Your task to perform on an android device: open the mobile data screen to see how much data has been used Image 0: 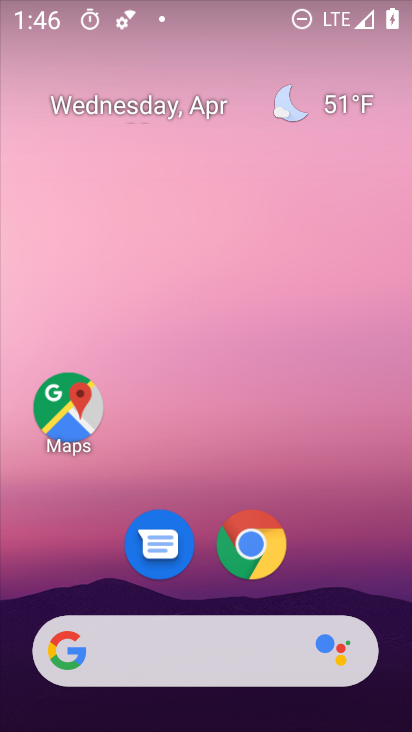
Step 0: drag from (331, 564) to (336, 147)
Your task to perform on an android device: open the mobile data screen to see how much data has been used Image 1: 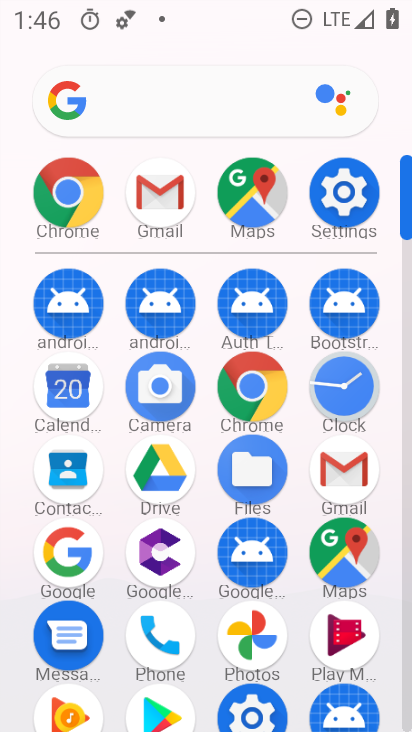
Step 1: click (342, 206)
Your task to perform on an android device: open the mobile data screen to see how much data has been used Image 2: 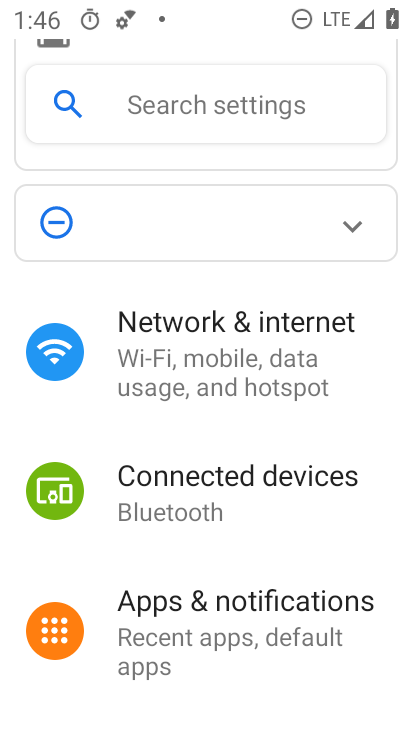
Step 2: drag from (377, 549) to (387, 403)
Your task to perform on an android device: open the mobile data screen to see how much data has been used Image 3: 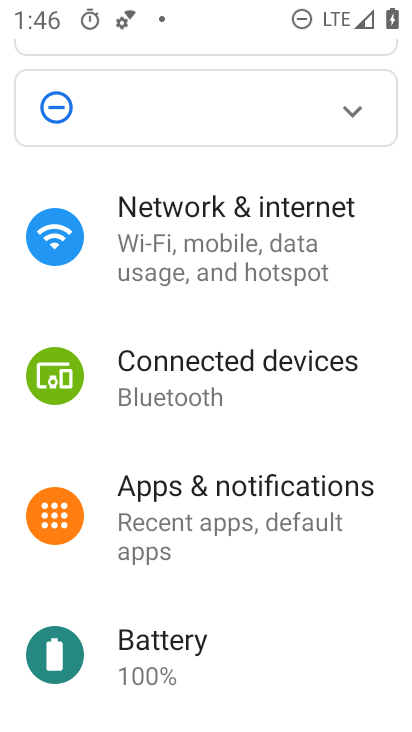
Step 3: drag from (356, 622) to (370, 425)
Your task to perform on an android device: open the mobile data screen to see how much data has been used Image 4: 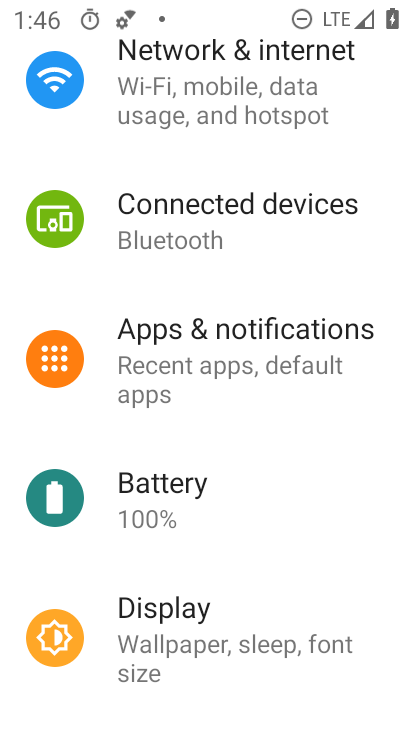
Step 4: drag from (348, 618) to (354, 417)
Your task to perform on an android device: open the mobile data screen to see how much data has been used Image 5: 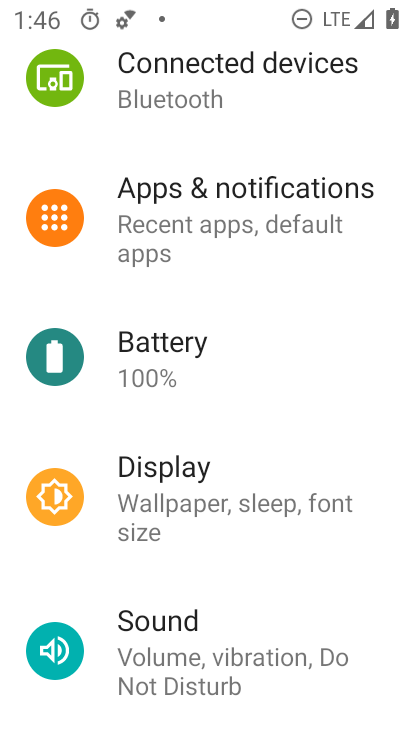
Step 5: drag from (370, 660) to (373, 440)
Your task to perform on an android device: open the mobile data screen to see how much data has been used Image 6: 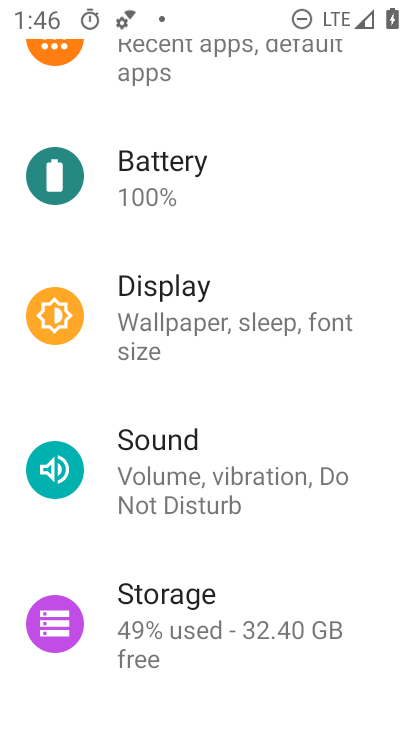
Step 6: drag from (365, 630) to (378, 439)
Your task to perform on an android device: open the mobile data screen to see how much data has been used Image 7: 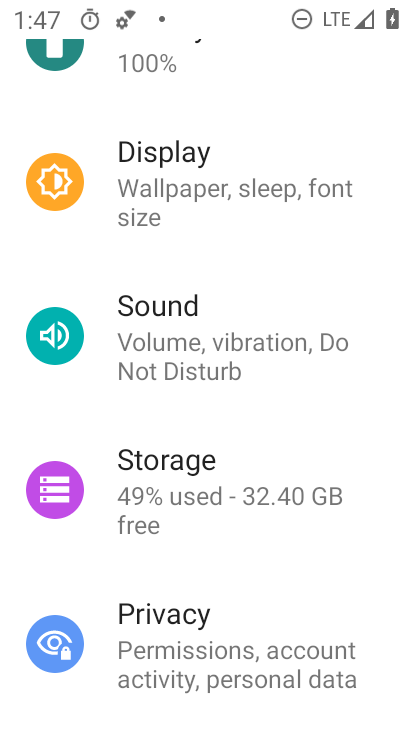
Step 7: drag from (367, 651) to (368, 462)
Your task to perform on an android device: open the mobile data screen to see how much data has been used Image 8: 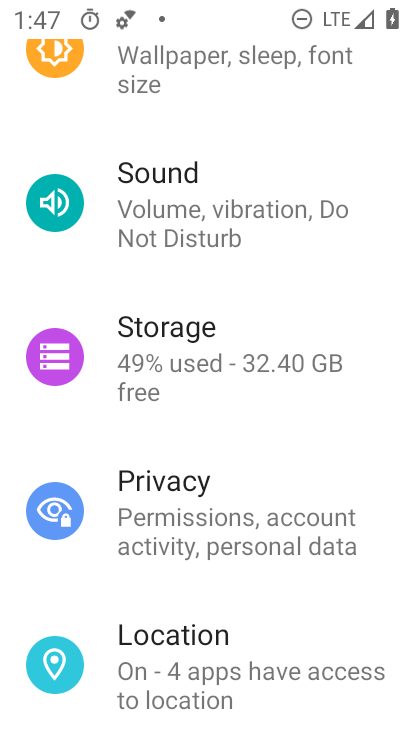
Step 8: drag from (362, 612) to (368, 414)
Your task to perform on an android device: open the mobile data screen to see how much data has been used Image 9: 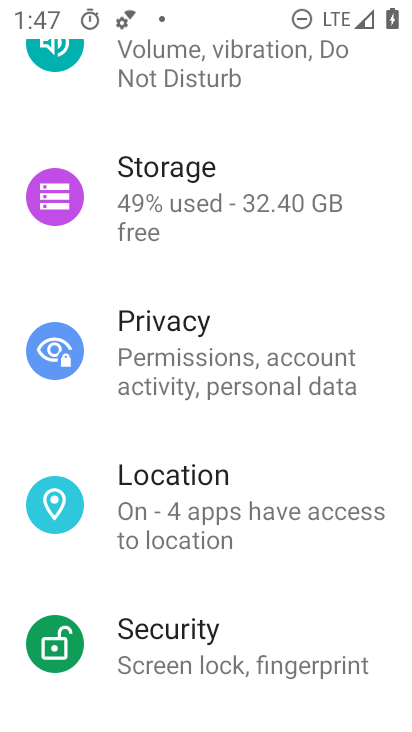
Step 9: drag from (317, 605) to (315, 413)
Your task to perform on an android device: open the mobile data screen to see how much data has been used Image 10: 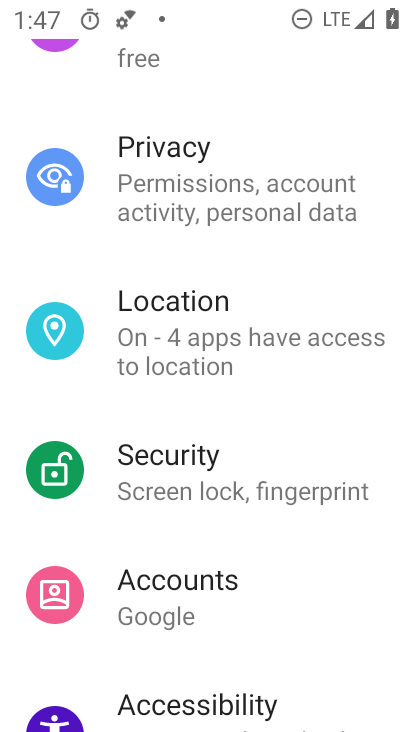
Step 10: drag from (331, 627) to (334, 426)
Your task to perform on an android device: open the mobile data screen to see how much data has been used Image 11: 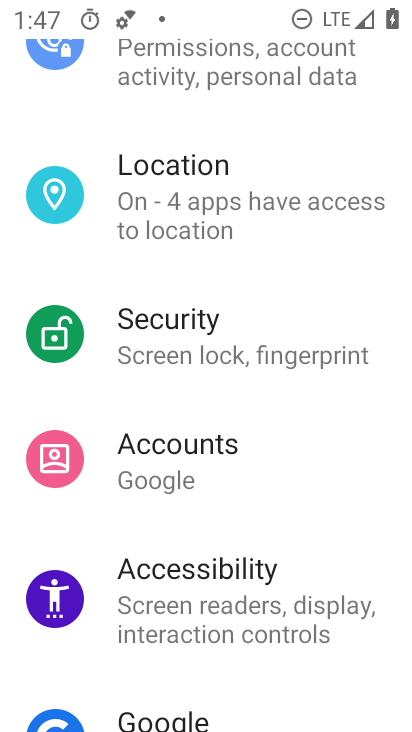
Step 11: drag from (344, 406) to (340, 547)
Your task to perform on an android device: open the mobile data screen to see how much data has been used Image 12: 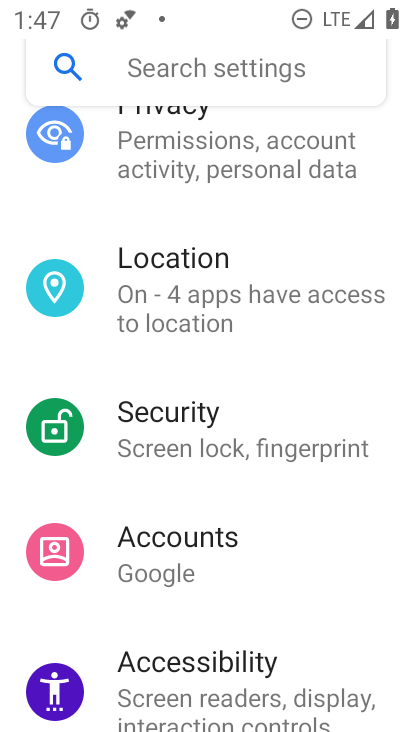
Step 12: drag from (369, 362) to (369, 562)
Your task to perform on an android device: open the mobile data screen to see how much data has been used Image 13: 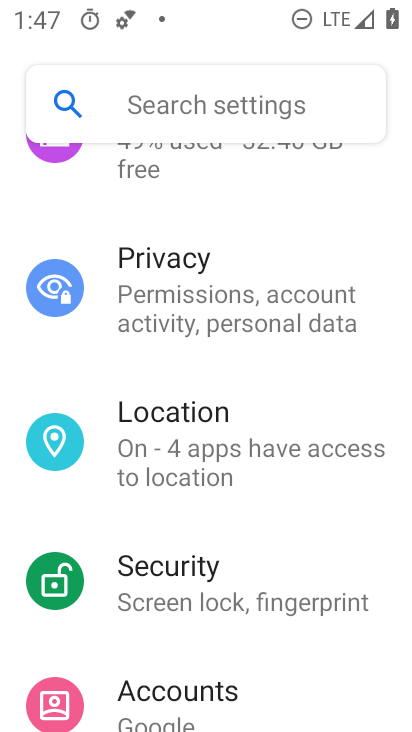
Step 13: drag from (378, 270) to (371, 502)
Your task to perform on an android device: open the mobile data screen to see how much data has been used Image 14: 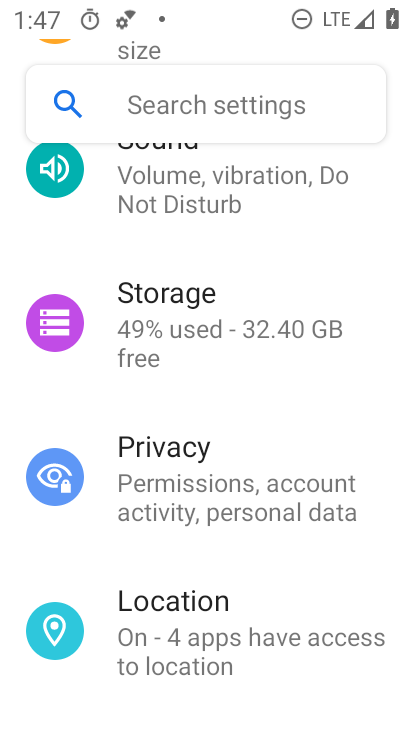
Step 14: drag from (379, 256) to (365, 419)
Your task to perform on an android device: open the mobile data screen to see how much data has been used Image 15: 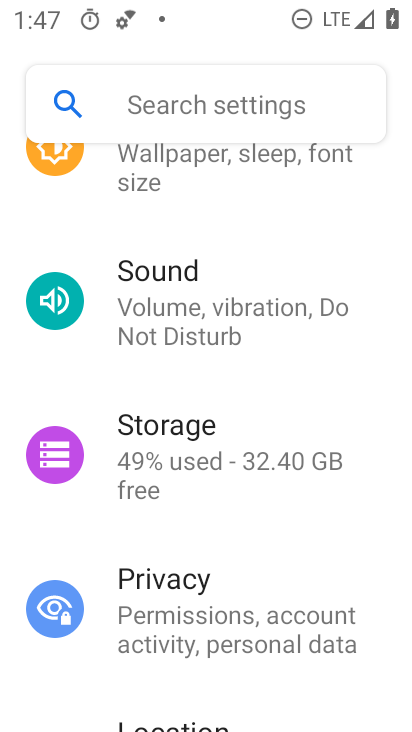
Step 15: drag from (370, 239) to (369, 443)
Your task to perform on an android device: open the mobile data screen to see how much data has been used Image 16: 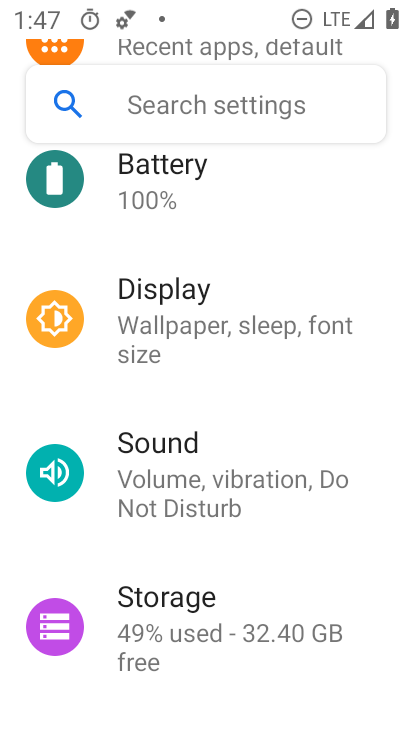
Step 16: drag from (376, 256) to (360, 442)
Your task to perform on an android device: open the mobile data screen to see how much data has been used Image 17: 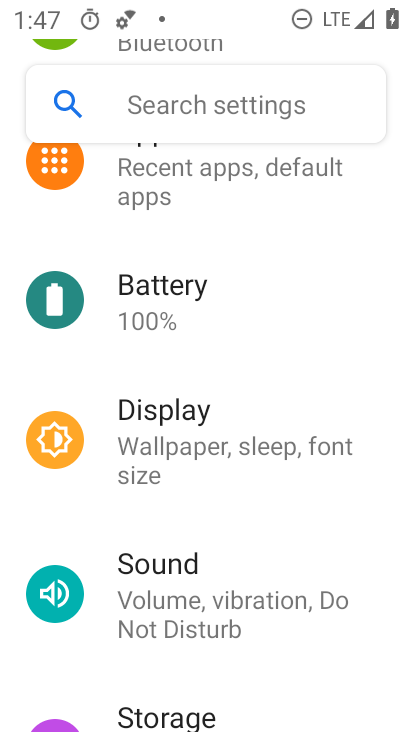
Step 17: drag from (370, 259) to (366, 501)
Your task to perform on an android device: open the mobile data screen to see how much data has been used Image 18: 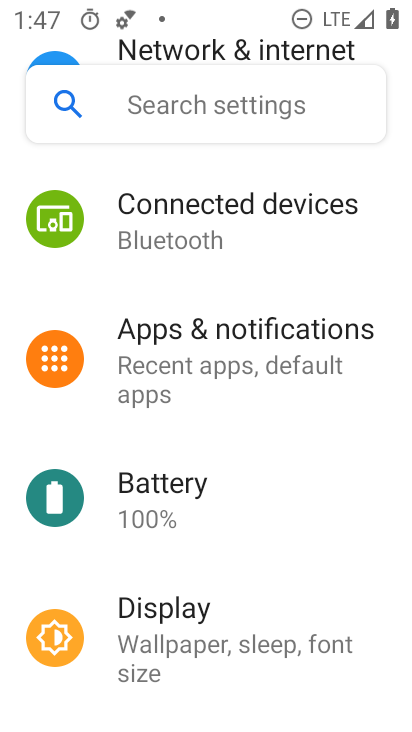
Step 18: drag from (366, 235) to (341, 498)
Your task to perform on an android device: open the mobile data screen to see how much data has been used Image 19: 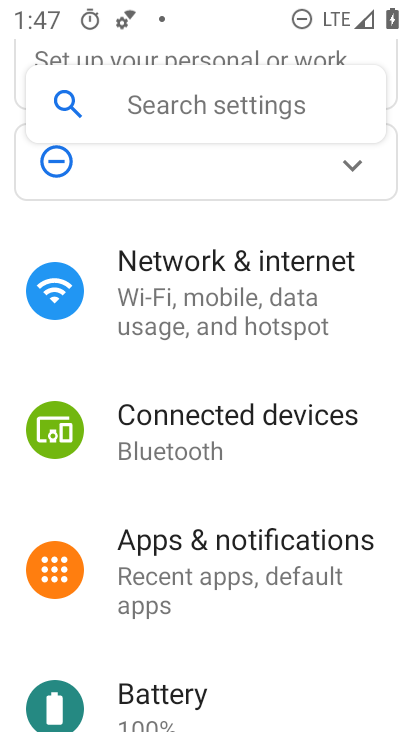
Step 19: click (221, 279)
Your task to perform on an android device: open the mobile data screen to see how much data has been used Image 20: 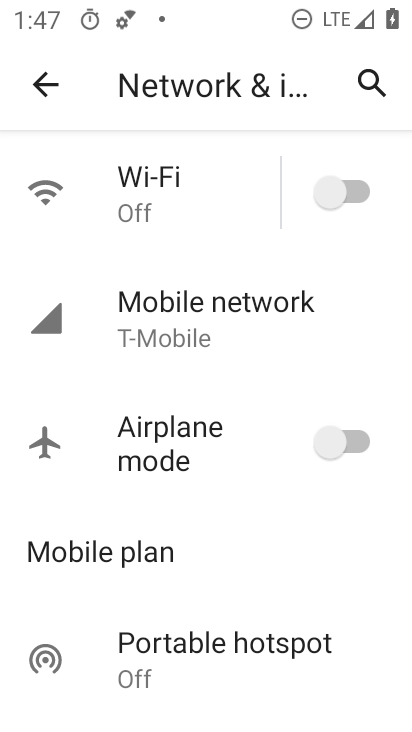
Step 20: click (232, 290)
Your task to perform on an android device: open the mobile data screen to see how much data has been used Image 21: 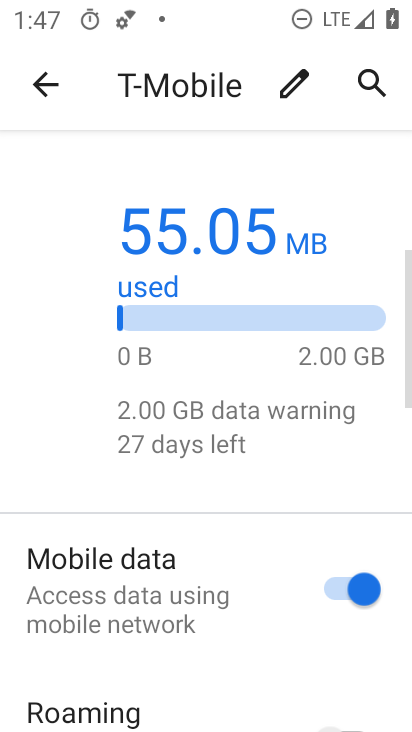
Step 21: drag from (234, 636) to (276, 383)
Your task to perform on an android device: open the mobile data screen to see how much data has been used Image 22: 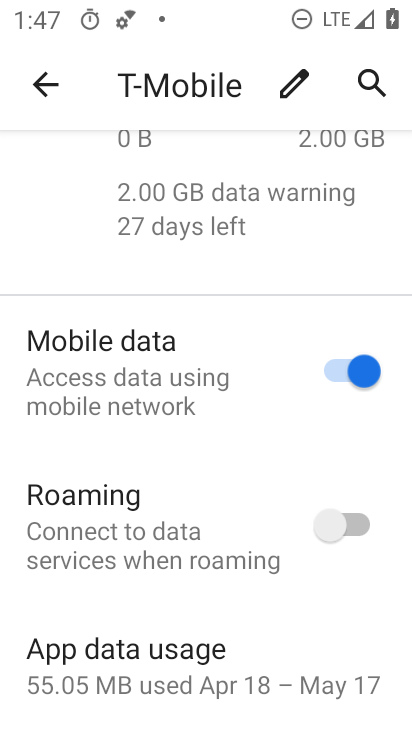
Step 22: drag from (260, 616) to (265, 375)
Your task to perform on an android device: open the mobile data screen to see how much data has been used Image 23: 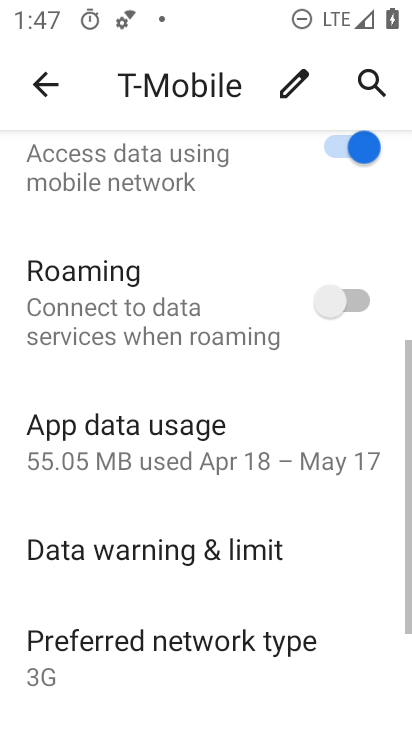
Step 23: click (108, 462)
Your task to perform on an android device: open the mobile data screen to see how much data has been used Image 24: 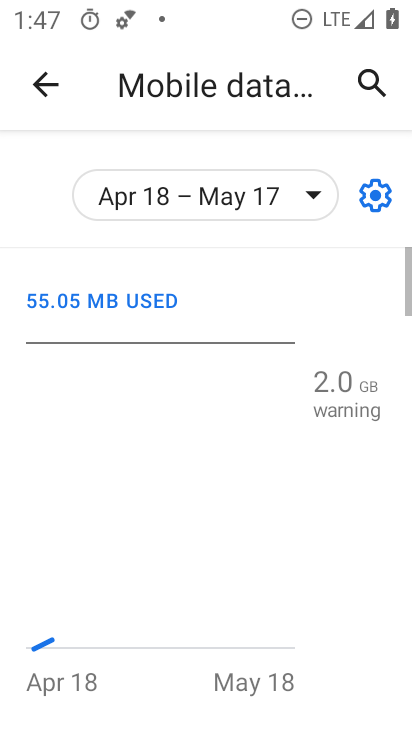
Step 24: task complete